Your task to perform on an android device: toggle notifications settings in the gmail app Image 0: 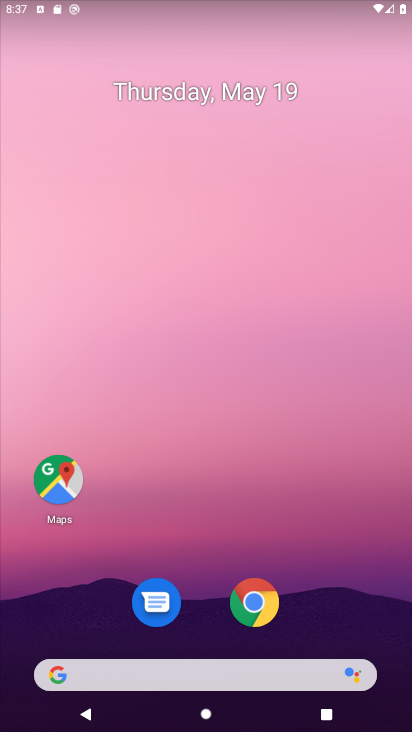
Step 0: press home button
Your task to perform on an android device: toggle notifications settings in the gmail app Image 1: 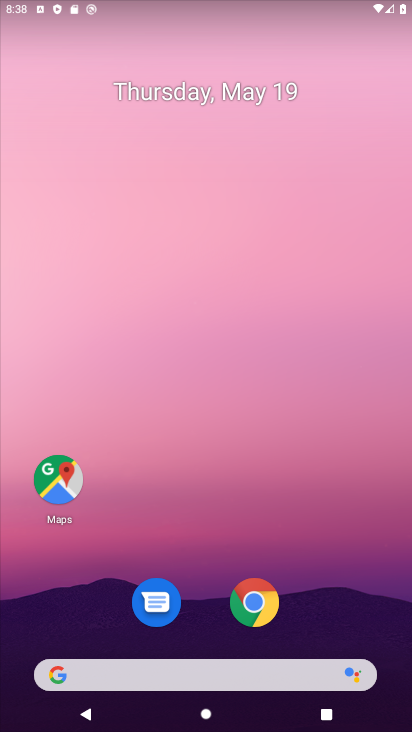
Step 1: drag from (324, 575) to (317, 34)
Your task to perform on an android device: toggle notifications settings in the gmail app Image 2: 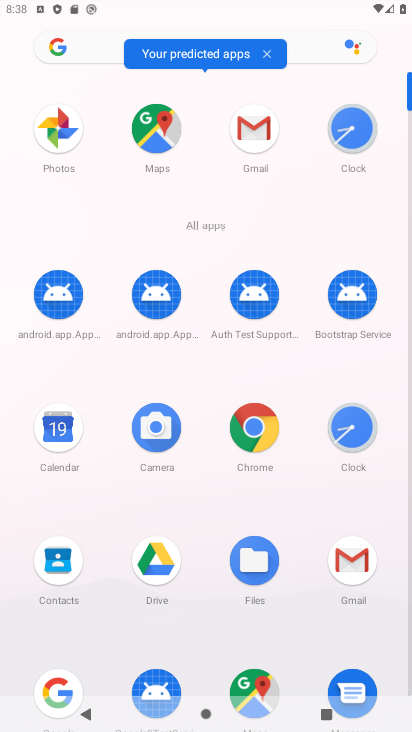
Step 2: click (262, 133)
Your task to perform on an android device: toggle notifications settings in the gmail app Image 3: 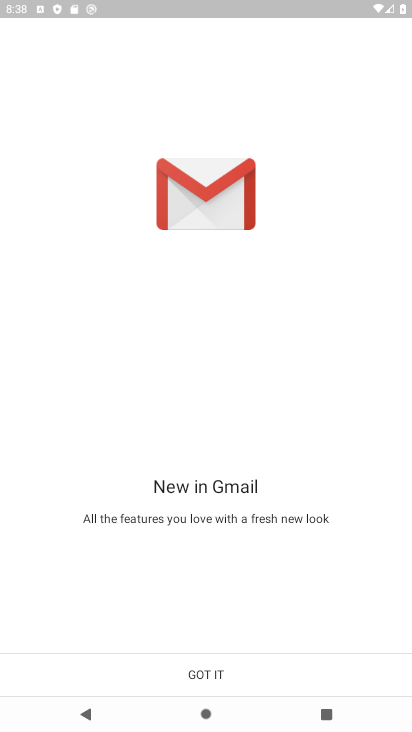
Step 3: click (241, 668)
Your task to perform on an android device: toggle notifications settings in the gmail app Image 4: 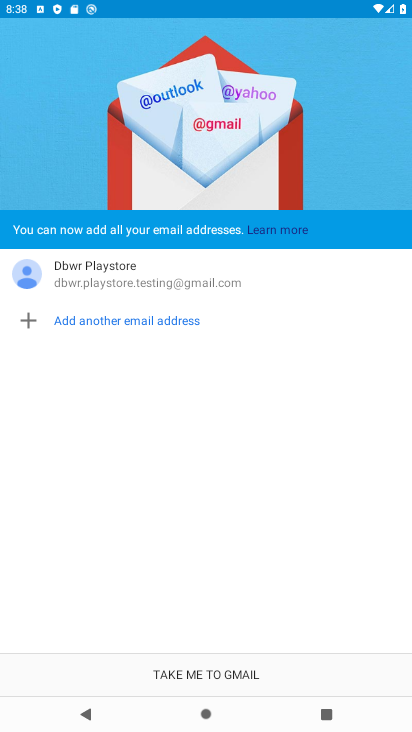
Step 4: click (233, 672)
Your task to perform on an android device: toggle notifications settings in the gmail app Image 5: 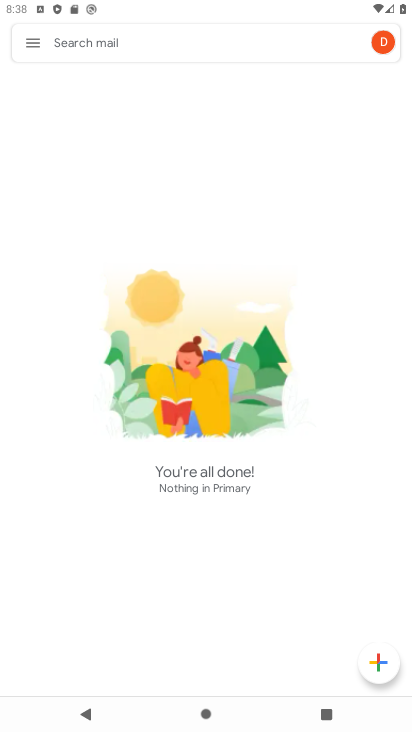
Step 5: click (32, 45)
Your task to perform on an android device: toggle notifications settings in the gmail app Image 6: 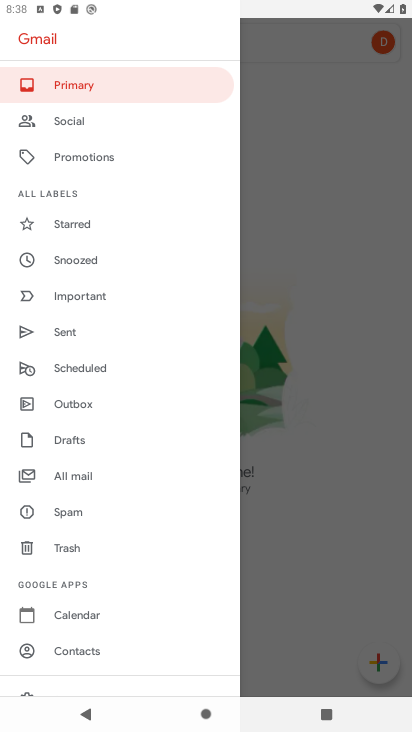
Step 6: drag from (113, 577) to (127, 317)
Your task to perform on an android device: toggle notifications settings in the gmail app Image 7: 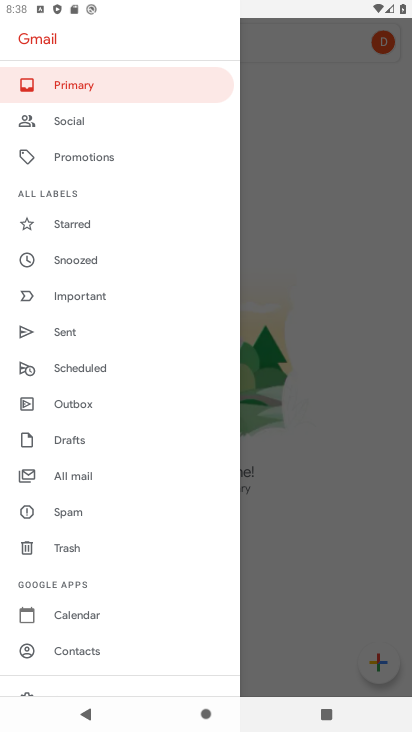
Step 7: drag from (124, 448) to (153, 304)
Your task to perform on an android device: toggle notifications settings in the gmail app Image 8: 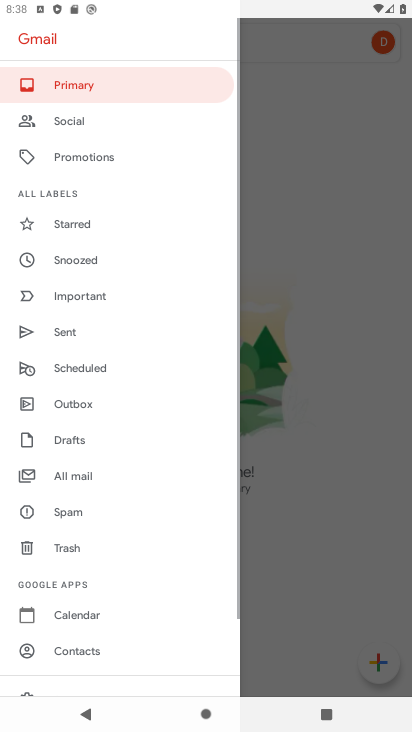
Step 8: drag from (93, 436) to (110, 200)
Your task to perform on an android device: toggle notifications settings in the gmail app Image 9: 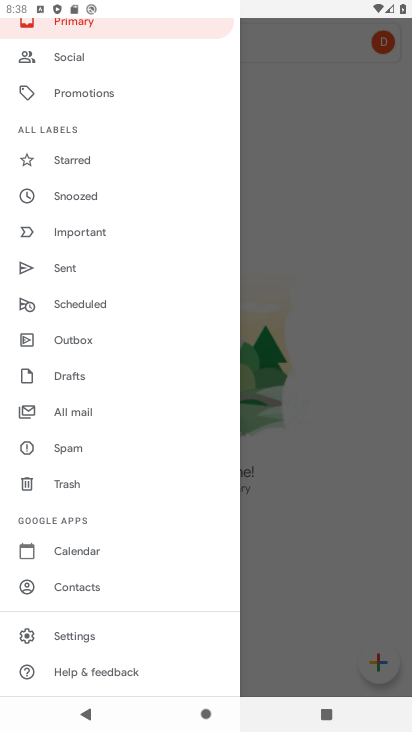
Step 9: click (93, 628)
Your task to perform on an android device: toggle notifications settings in the gmail app Image 10: 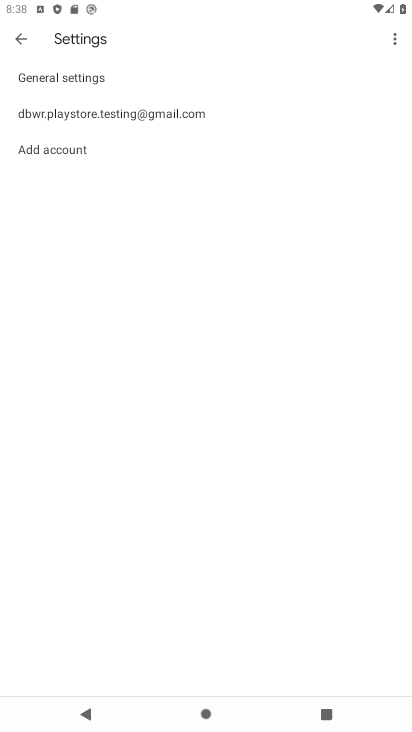
Step 10: click (184, 108)
Your task to perform on an android device: toggle notifications settings in the gmail app Image 11: 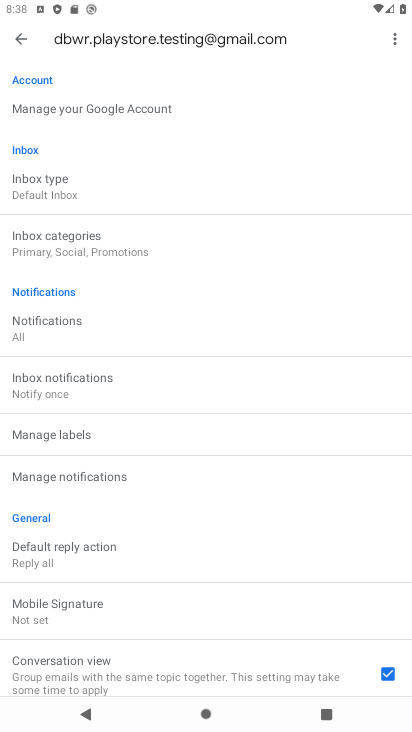
Step 11: click (85, 468)
Your task to perform on an android device: toggle notifications settings in the gmail app Image 12: 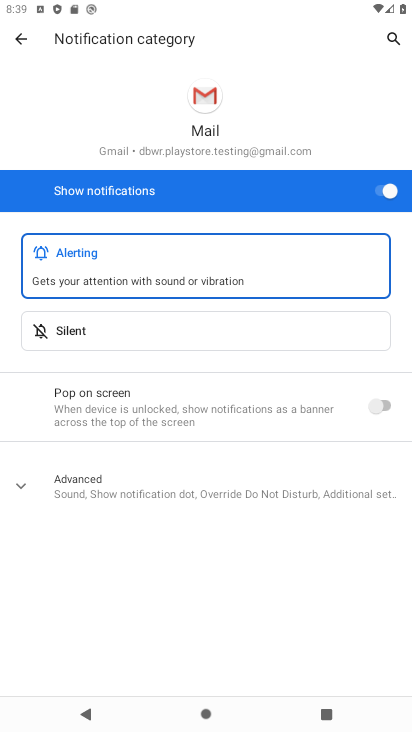
Step 12: click (370, 188)
Your task to perform on an android device: toggle notifications settings in the gmail app Image 13: 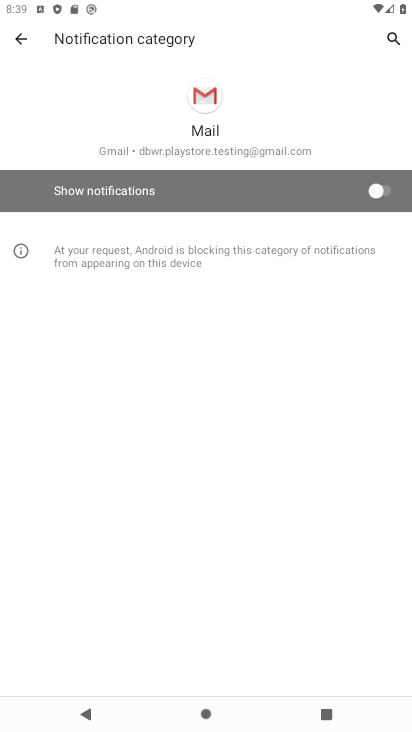
Step 13: task complete